Your task to perform on an android device: Open Chrome and go to settings Image 0: 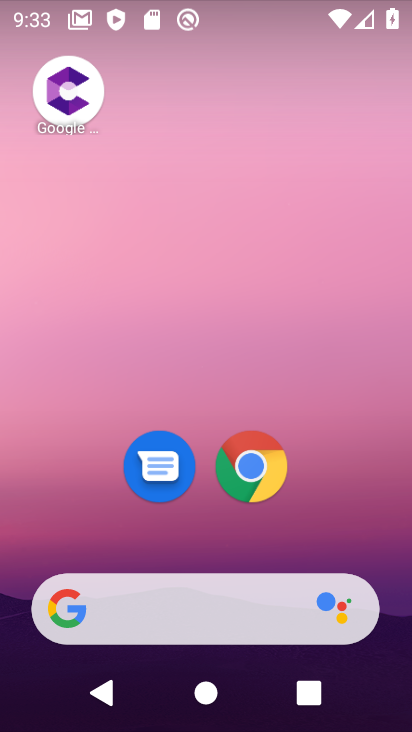
Step 0: drag from (319, 499) to (265, 0)
Your task to perform on an android device: Open Chrome and go to settings Image 1: 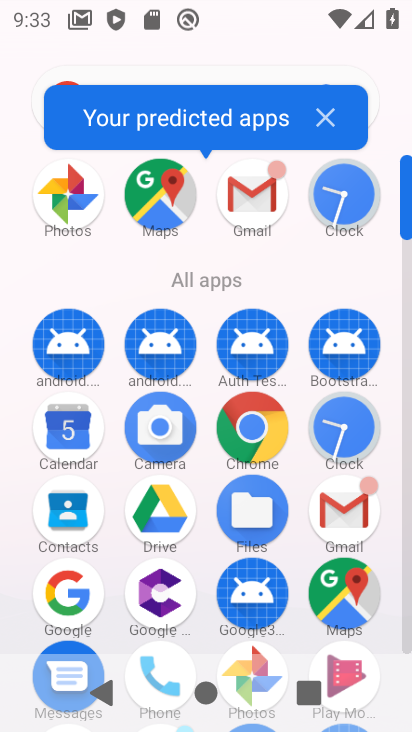
Step 1: click (246, 417)
Your task to perform on an android device: Open Chrome and go to settings Image 2: 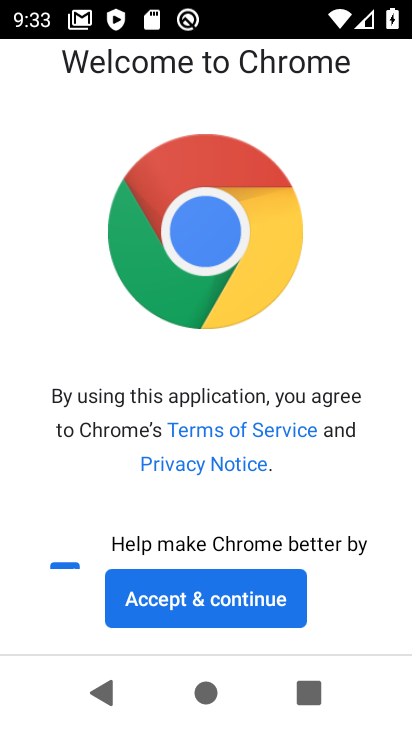
Step 2: click (222, 598)
Your task to perform on an android device: Open Chrome and go to settings Image 3: 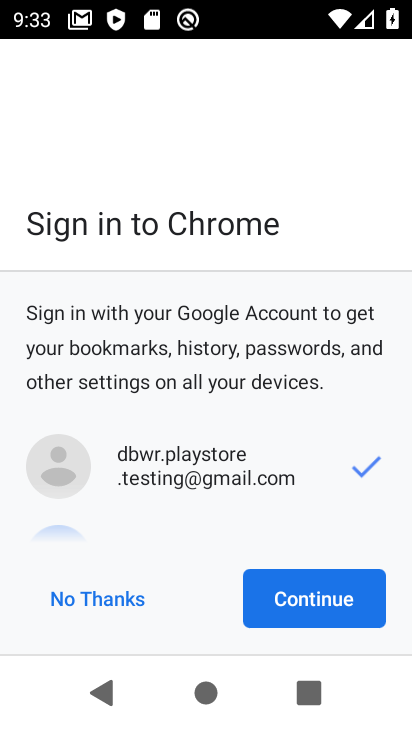
Step 3: click (285, 596)
Your task to perform on an android device: Open Chrome and go to settings Image 4: 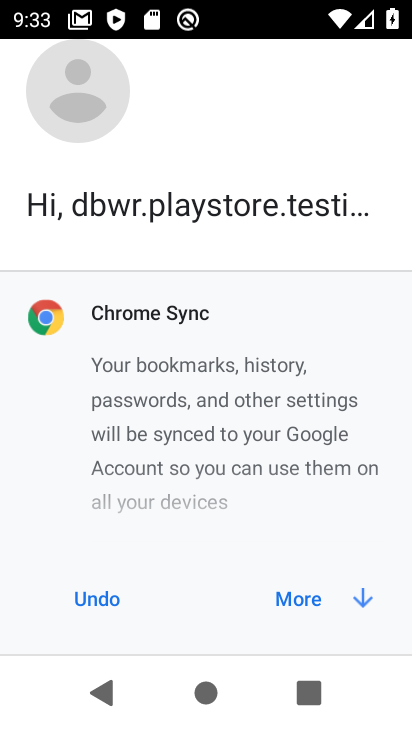
Step 4: click (342, 588)
Your task to perform on an android device: Open Chrome and go to settings Image 5: 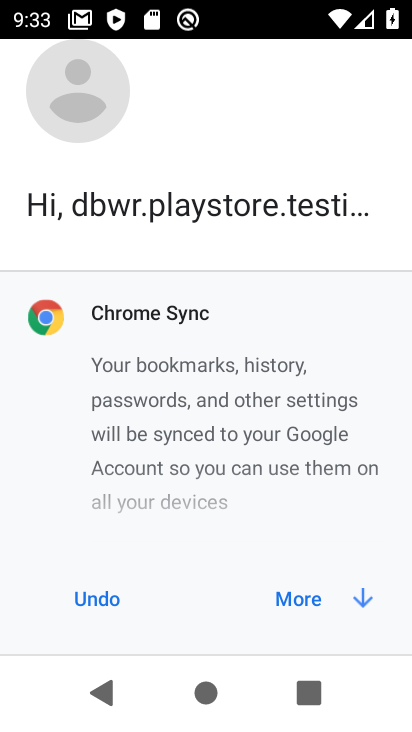
Step 5: click (342, 588)
Your task to perform on an android device: Open Chrome and go to settings Image 6: 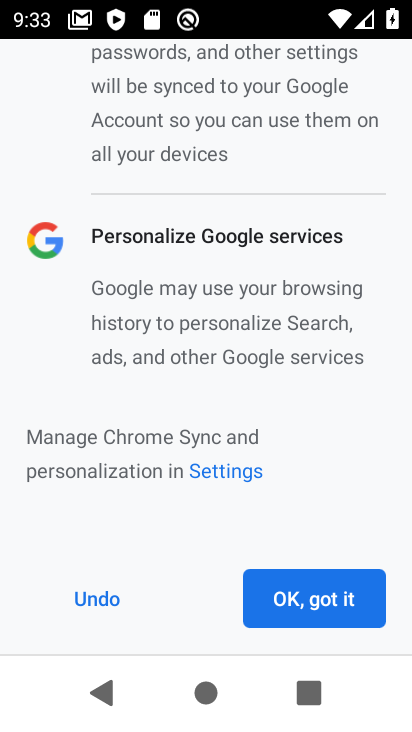
Step 6: click (346, 590)
Your task to perform on an android device: Open Chrome and go to settings Image 7: 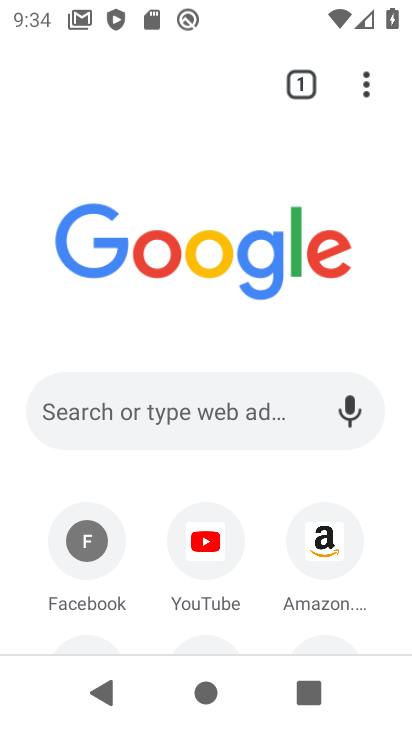
Step 7: click (367, 71)
Your task to perform on an android device: Open Chrome and go to settings Image 8: 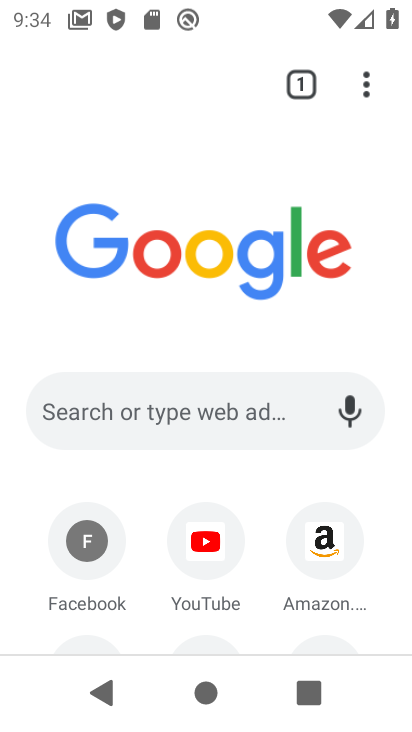
Step 8: task complete